Your task to perform on an android device: Go to calendar. Show me events next week Image 0: 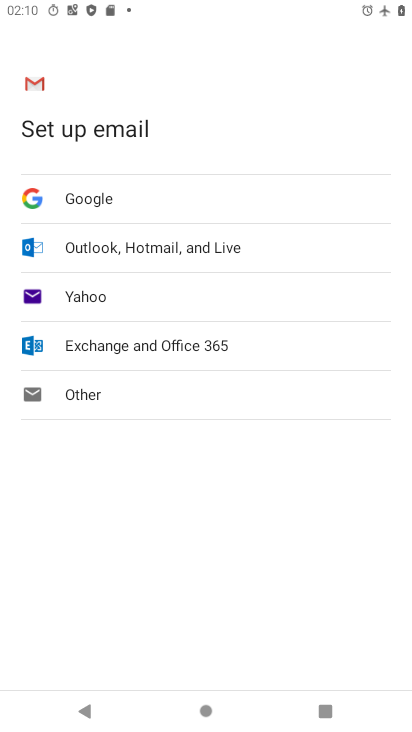
Step 0: drag from (203, 570) to (214, 383)
Your task to perform on an android device: Go to calendar. Show me events next week Image 1: 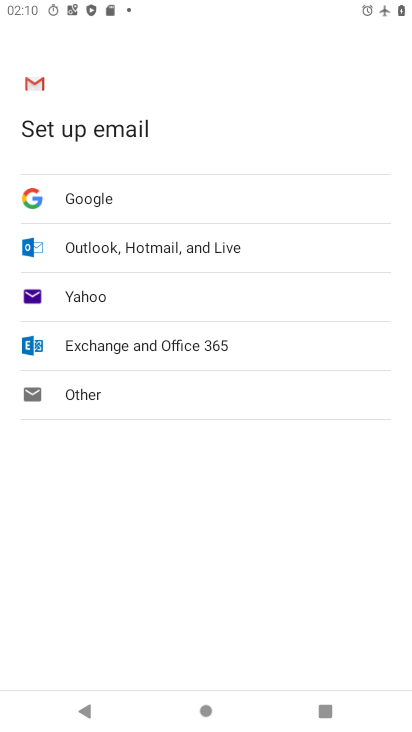
Step 1: press home button
Your task to perform on an android device: Go to calendar. Show me events next week Image 2: 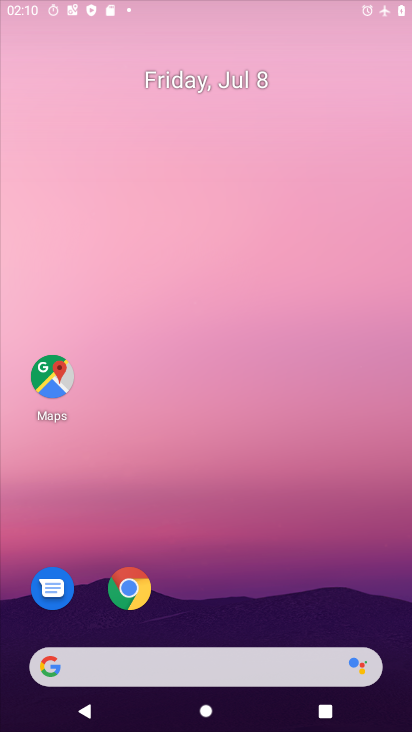
Step 2: drag from (137, 649) to (24, 7)
Your task to perform on an android device: Go to calendar. Show me events next week Image 3: 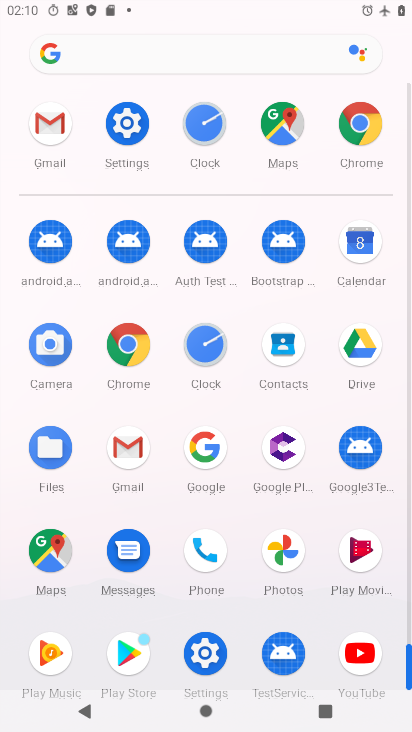
Step 3: click (371, 230)
Your task to perform on an android device: Go to calendar. Show me events next week Image 4: 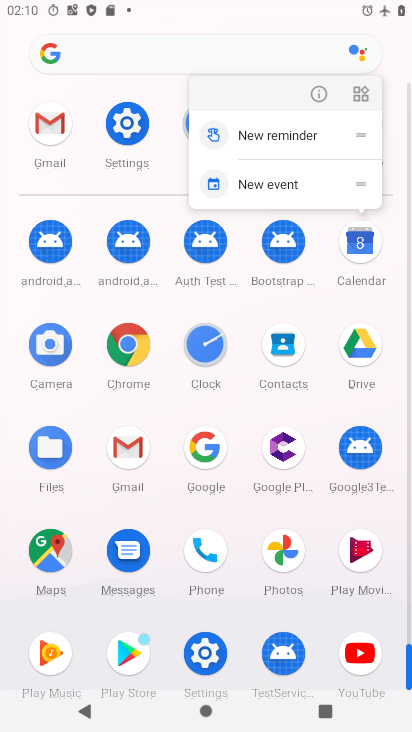
Step 4: click (306, 97)
Your task to perform on an android device: Go to calendar. Show me events next week Image 5: 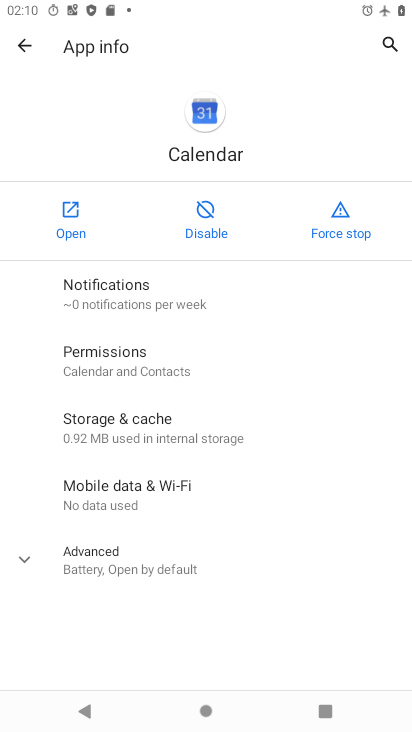
Step 5: click (70, 204)
Your task to perform on an android device: Go to calendar. Show me events next week Image 6: 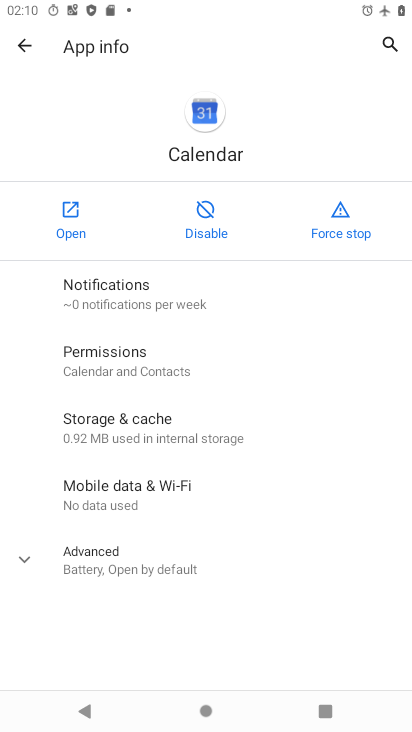
Step 6: click (70, 204)
Your task to perform on an android device: Go to calendar. Show me events next week Image 7: 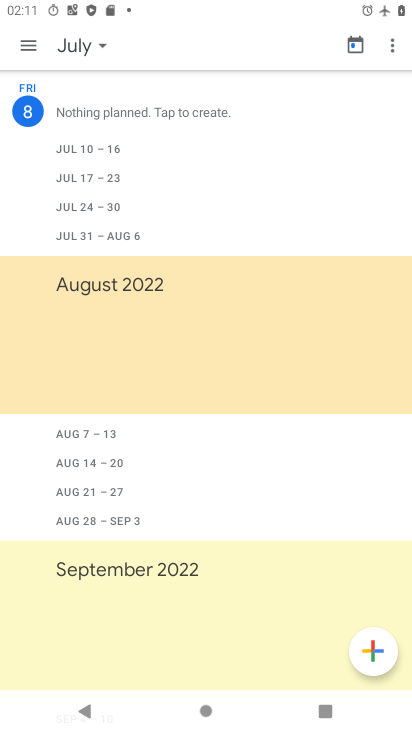
Step 7: drag from (144, 195) to (257, 574)
Your task to perform on an android device: Go to calendar. Show me events next week Image 8: 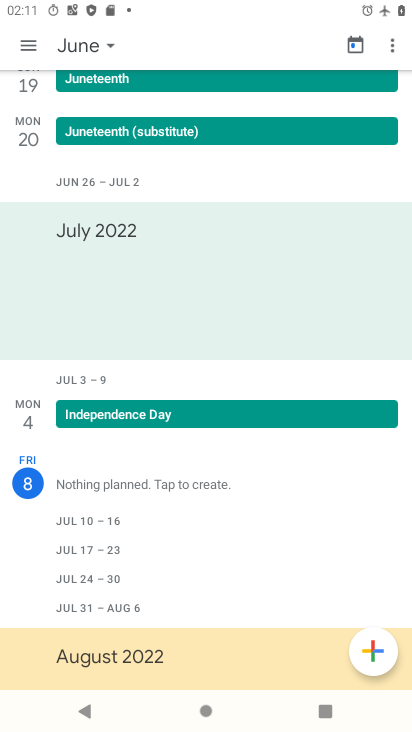
Step 8: click (101, 43)
Your task to perform on an android device: Go to calendar. Show me events next week Image 9: 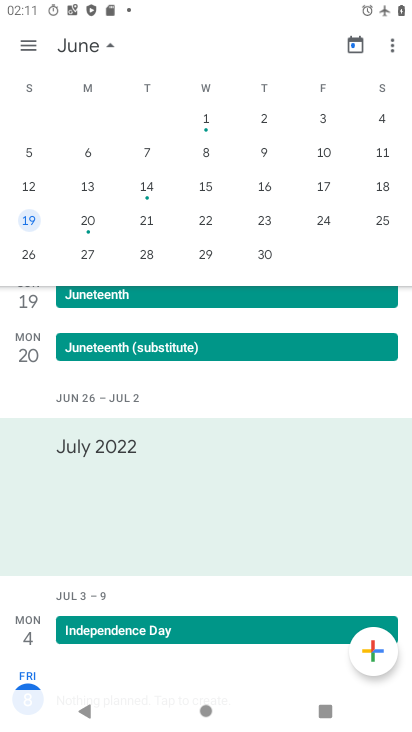
Step 9: drag from (396, 153) to (10, 189)
Your task to perform on an android device: Go to calendar. Show me events next week Image 10: 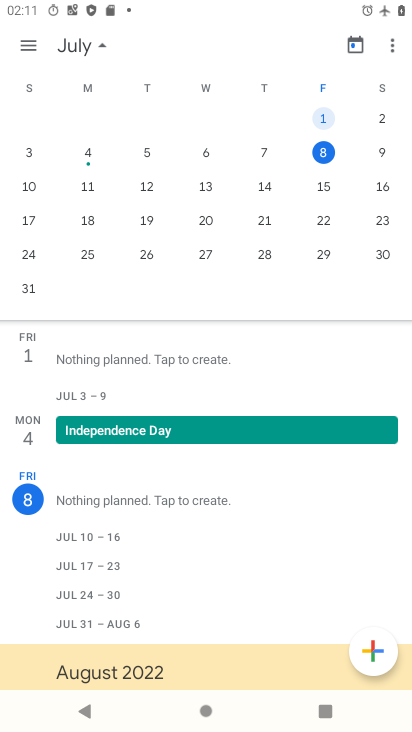
Step 10: drag from (338, 197) to (1, 201)
Your task to perform on an android device: Go to calendar. Show me events next week Image 11: 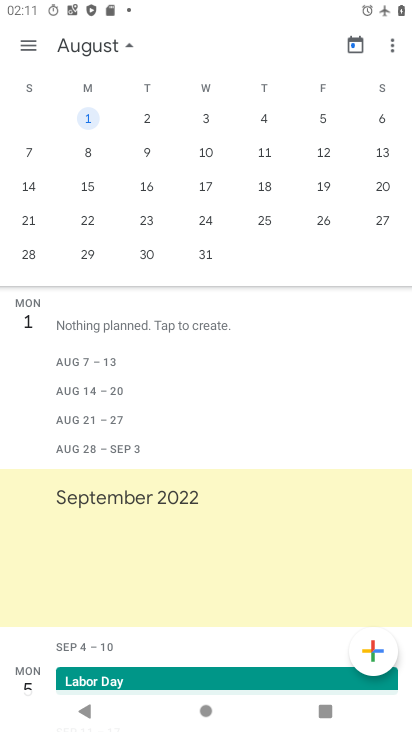
Step 11: drag from (18, 182) to (365, 210)
Your task to perform on an android device: Go to calendar. Show me events next week Image 12: 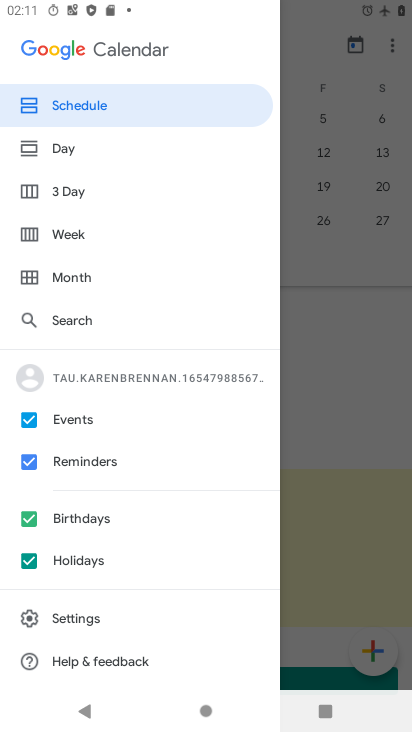
Step 12: click (324, 373)
Your task to perform on an android device: Go to calendar. Show me events next week Image 13: 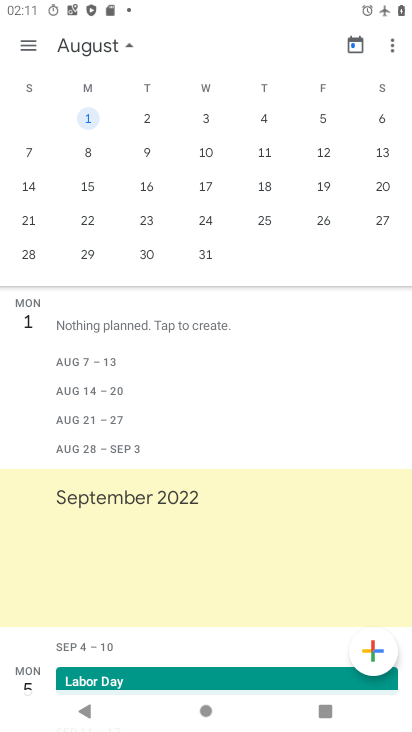
Step 13: drag from (101, 143) to (405, 207)
Your task to perform on an android device: Go to calendar. Show me events next week Image 14: 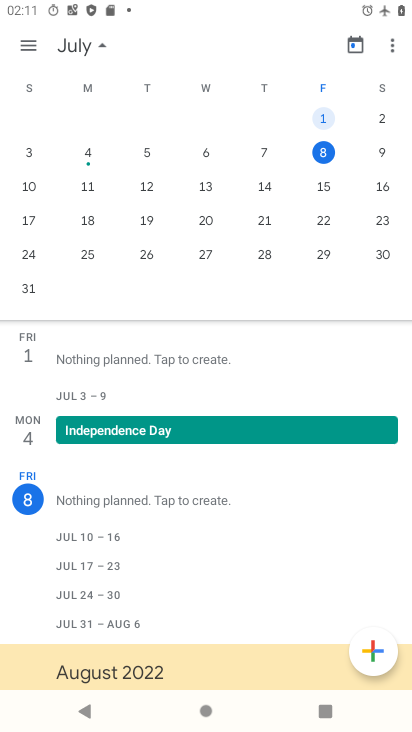
Step 14: click (206, 183)
Your task to perform on an android device: Go to calendar. Show me events next week Image 15: 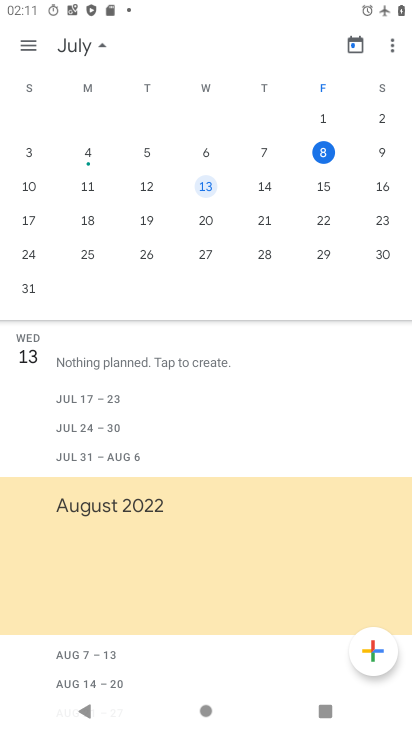
Step 15: task complete